Your task to perform on an android device: Open wifi settings Image 0: 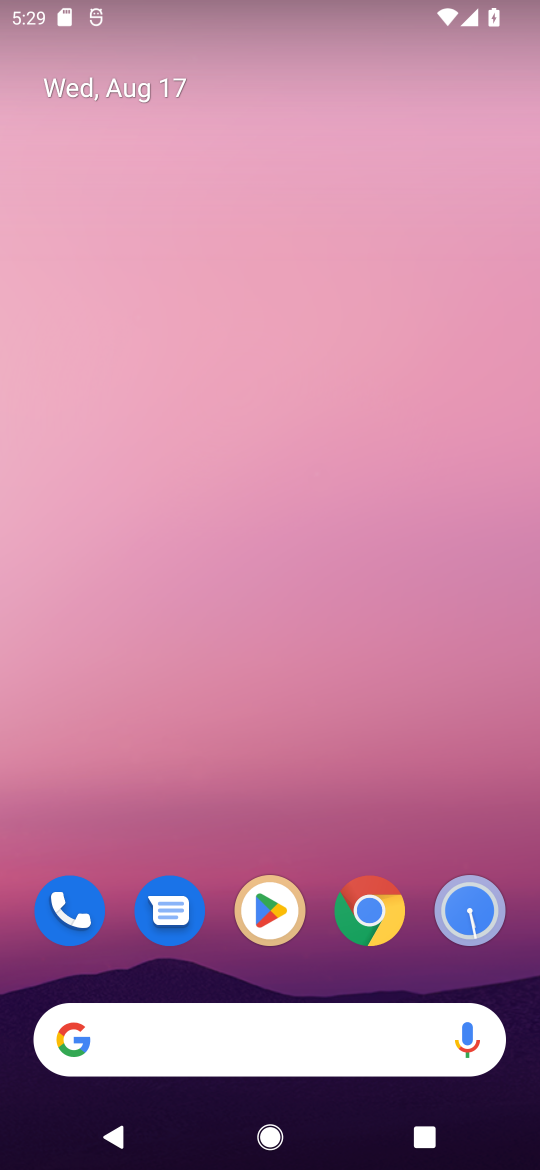
Step 0: drag from (218, 757) to (218, 203)
Your task to perform on an android device: Open wifi settings Image 1: 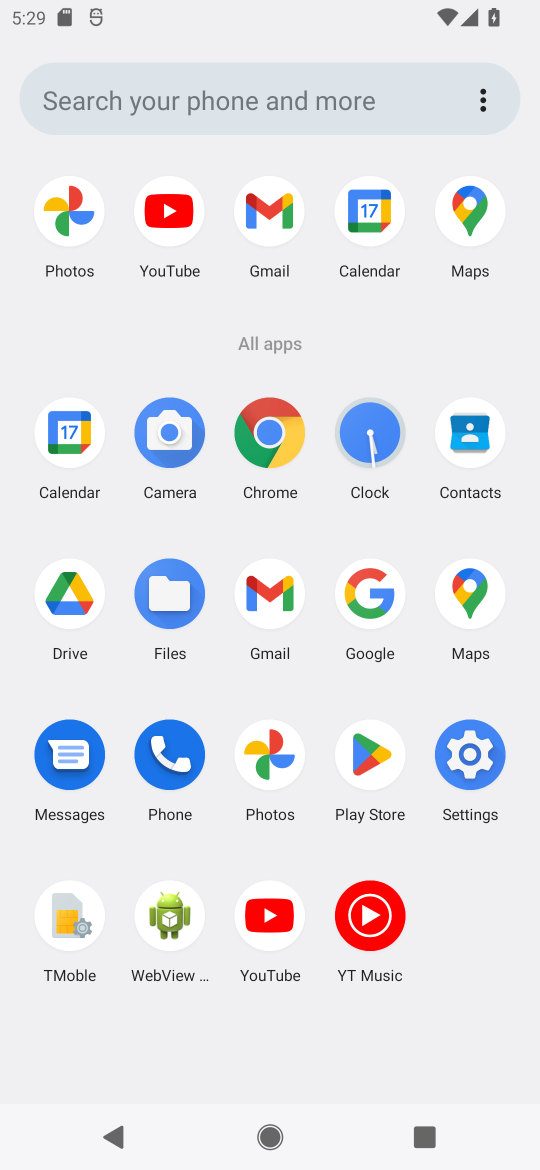
Step 1: click (486, 764)
Your task to perform on an android device: Open wifi settings Image 2: 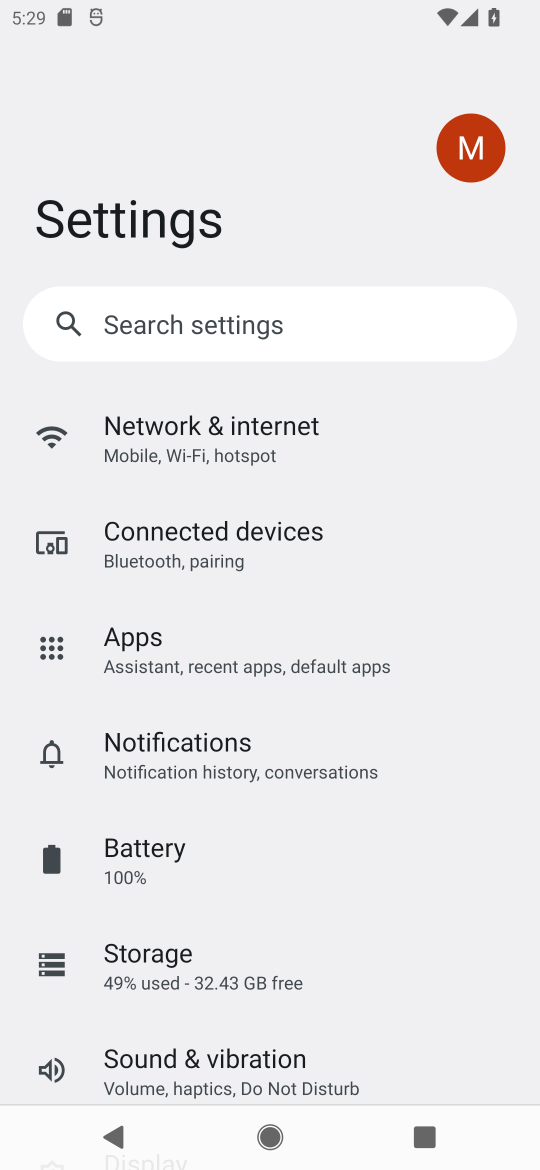
Step 2: task complete